Your task to perform on an android device: check storage Image 0: 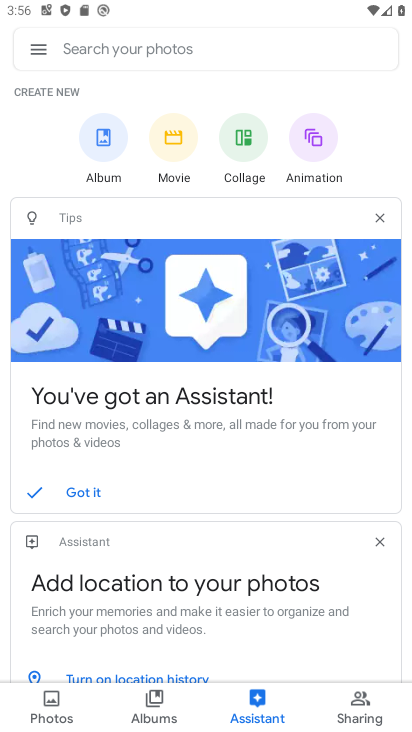
Step 0: press home button
Your task to perform on an android device: check storage Image 1: 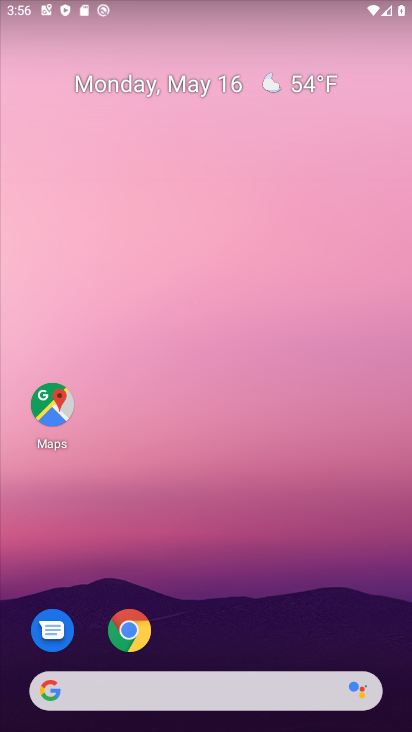
Step 1: drag from (206, 630) to (267, 112)
Your task to perform on an android device: check storage Image 2: 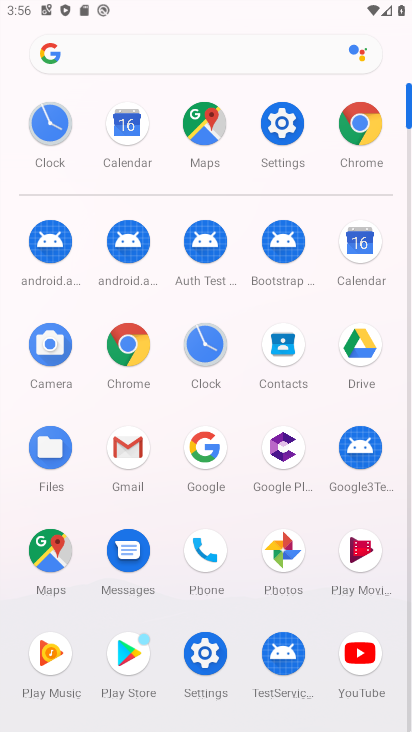
Step 2: click (281, 139)
Your task to perform on an android device: check storage Image 3: 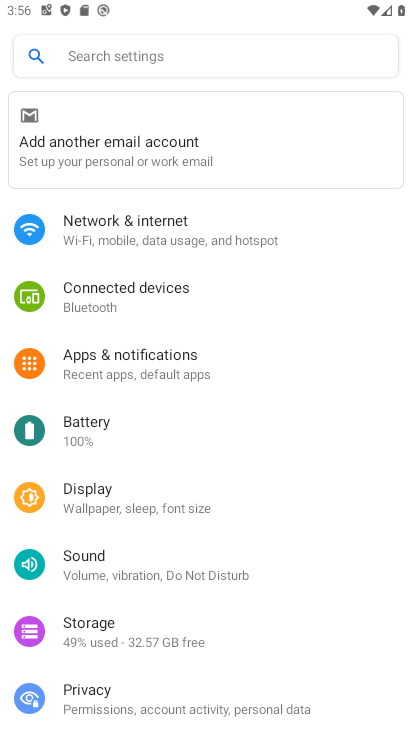
Step 3: click (217, 628)
Your task to perform on an android device: check storage Image 4: 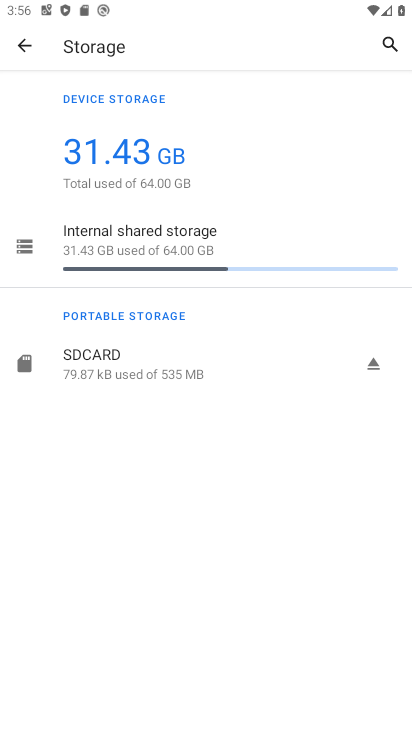
Step 4: task complete